Your task to perform on an android device: Search for seafood restaurants on Google Maps Image 0: 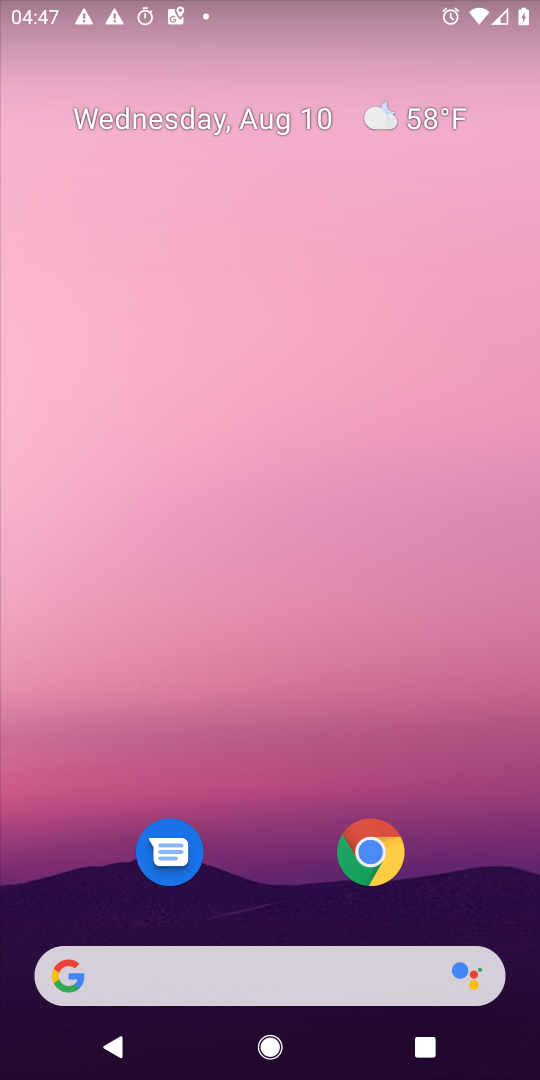
Step 0: drag from (291, 916) to (367, 5)
Your task to perform on an android device: Search for seafood restaurants on Google Maps Image 1: 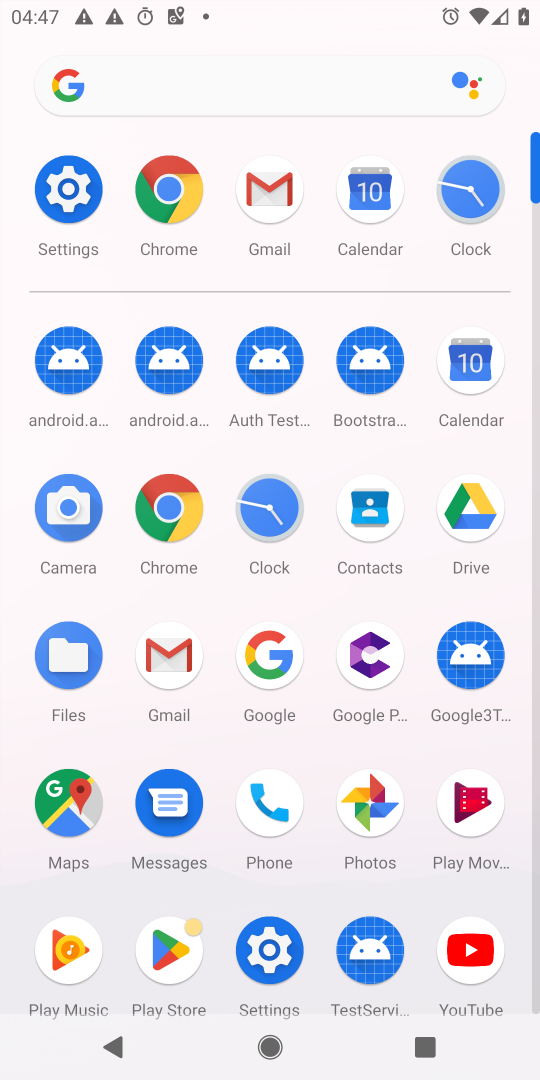
Step 1: click (82, 812)
Your task to perform on an android device: Search for seafood restaurants on Google Maps Image 2: 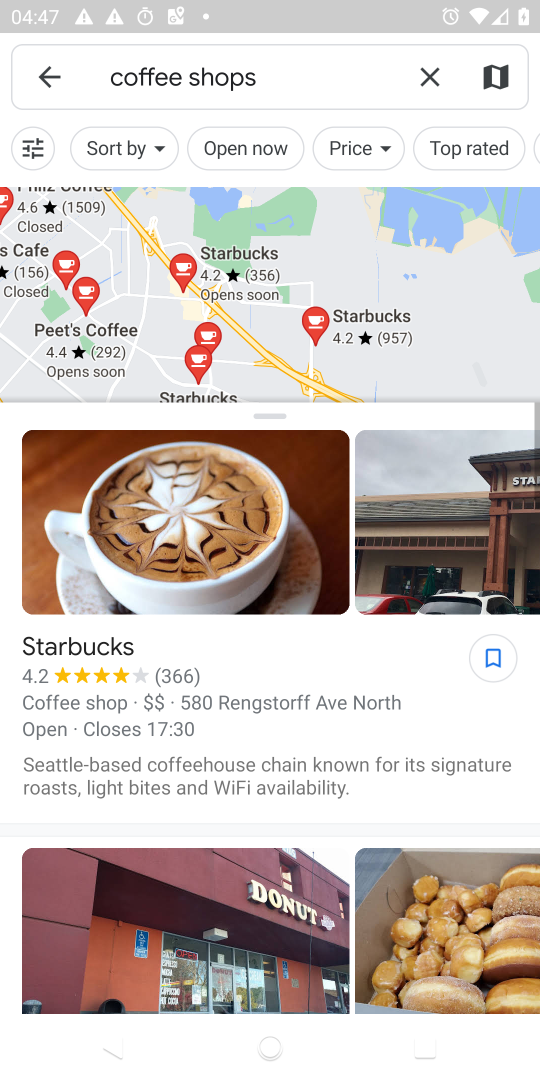
Step 2: click (428, 65)
Your task to perform on an android device: Search for seafood restaurants on Google Maps Image 3: 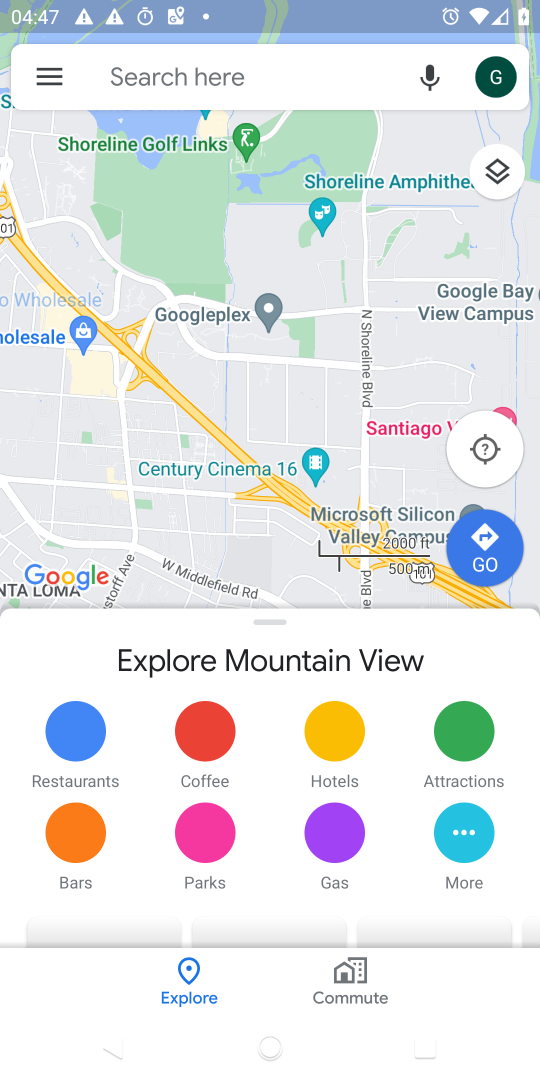
Step 3: click (337, 69)
Your task to perform on an android device: Search for seafood restaurants on Google Maps Image 4: 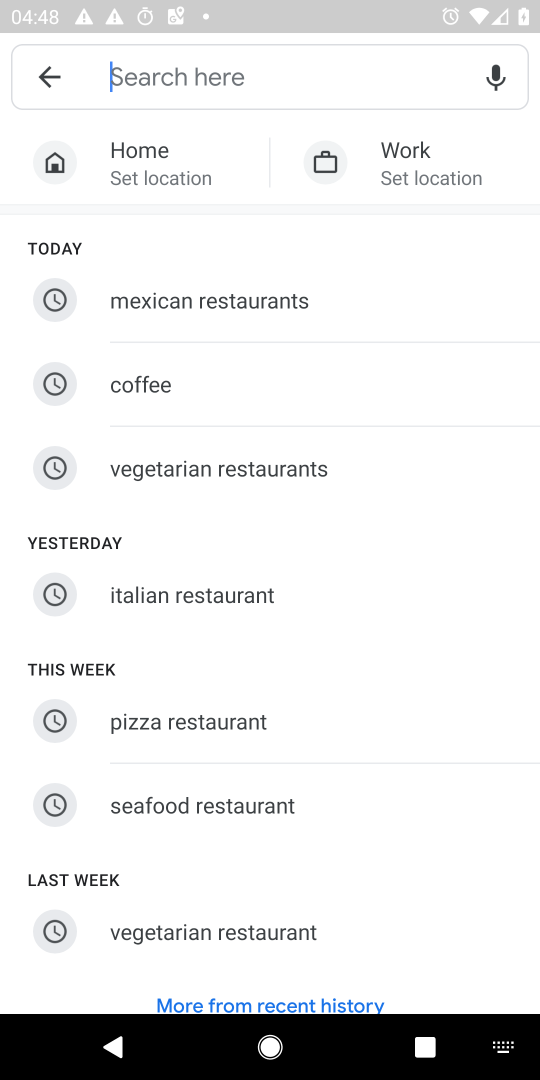
Step 4: type "seafood restaurants"
Your task to perform on an android device: Search for seafood restaurants on Google Maps Image 5: 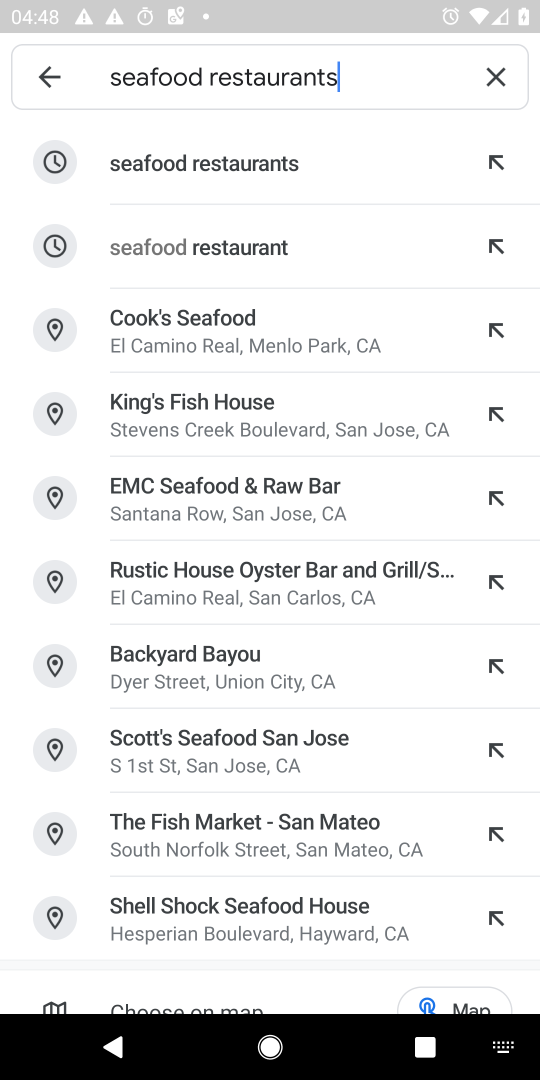
Step 5: click (224, 161)
Your task to perform on an android device: Search for seafood restaurants on Google Maps Image 6: 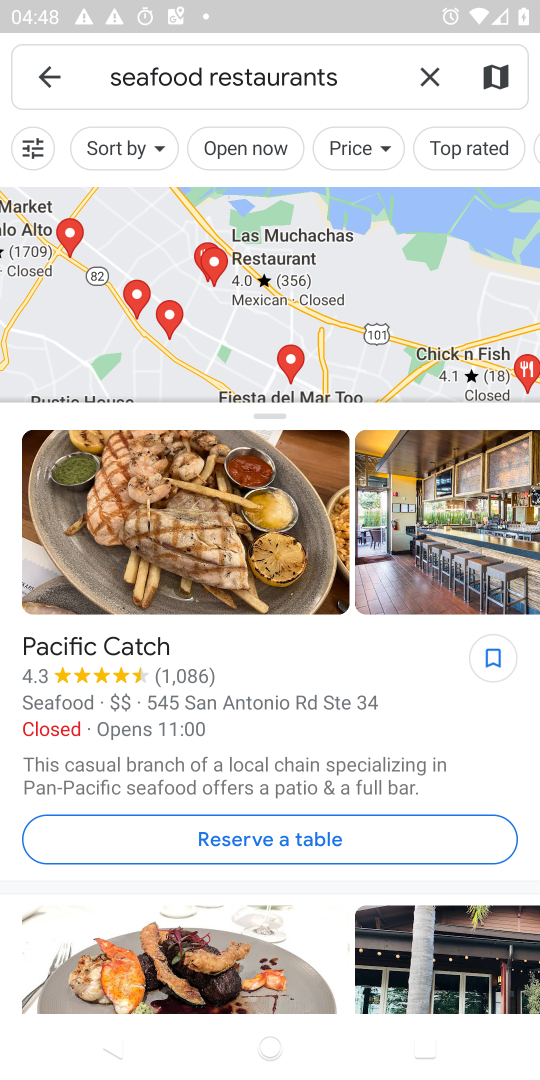
Step 6: task complete